Your task to perform on an android device: Open eBay Image 0: 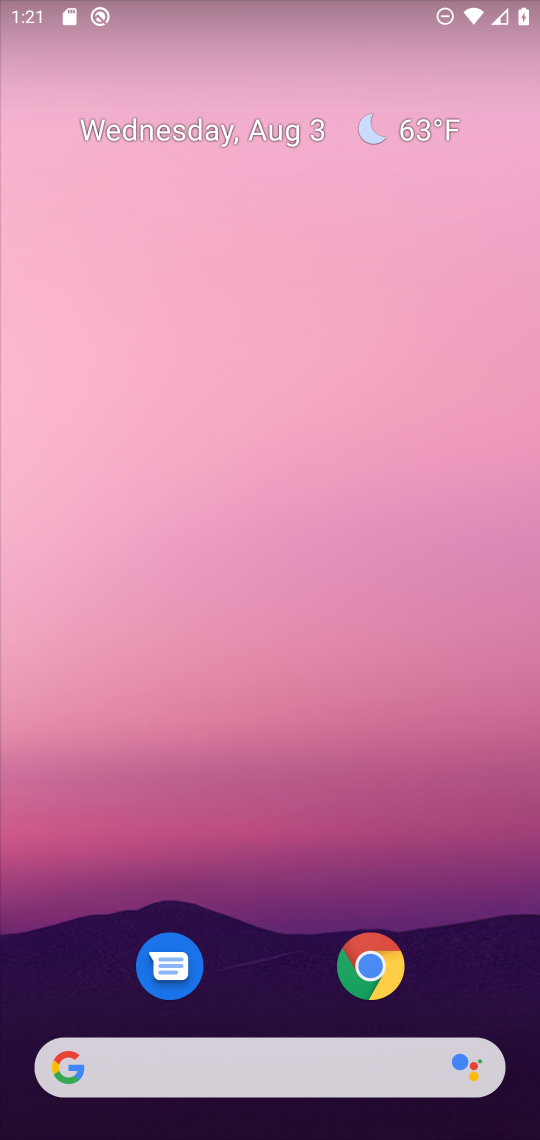
Step 0: click (355, 961)
Your task to perform on an android device: Open eBay Image 1: 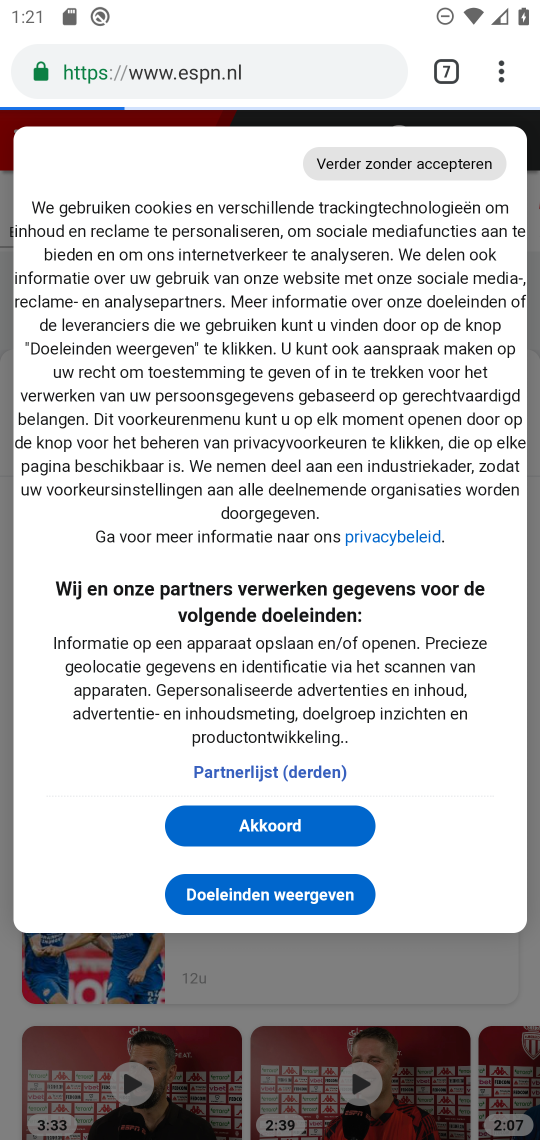
Step 1: click (446, 61)
Your task to perform on an android device: Open eBay Image 2: 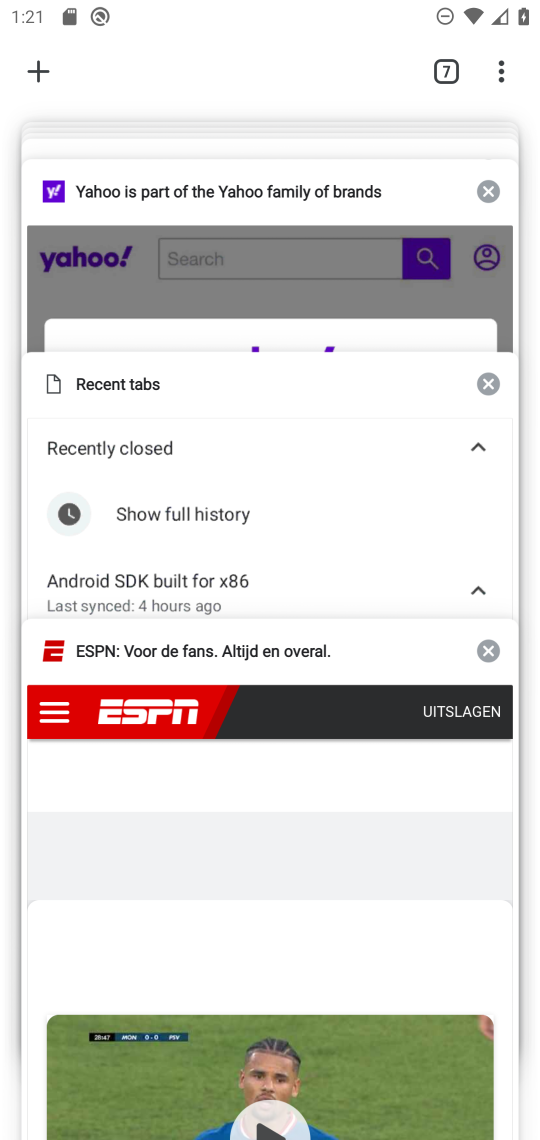
Step 2: click (42, 81)
Your task to perform on an android device: Open eBay Image 3: 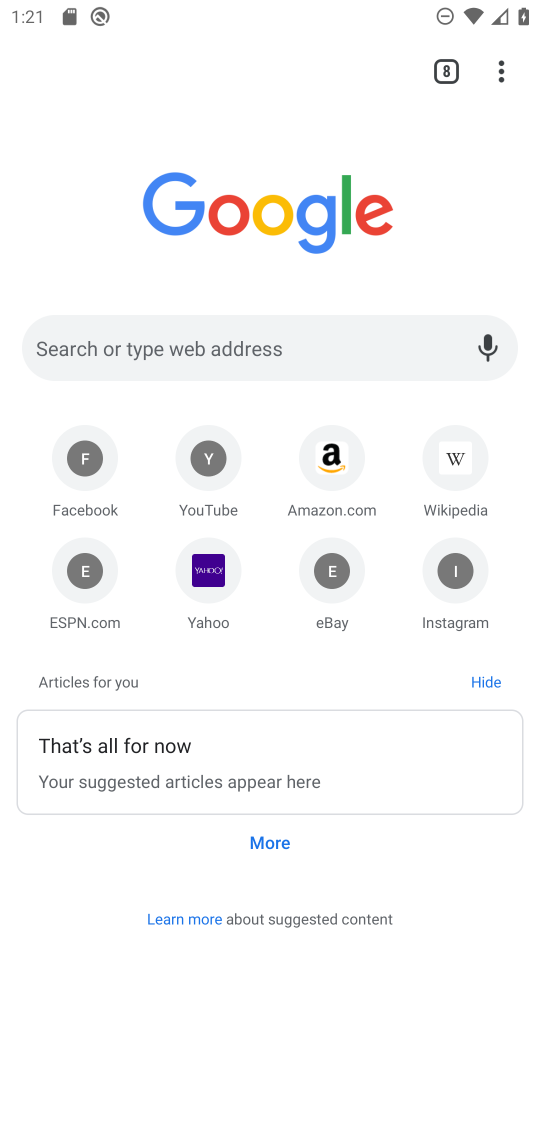
Step 3: click (236, 329)
Your task to perform on an android device: Open eBay Image 4: 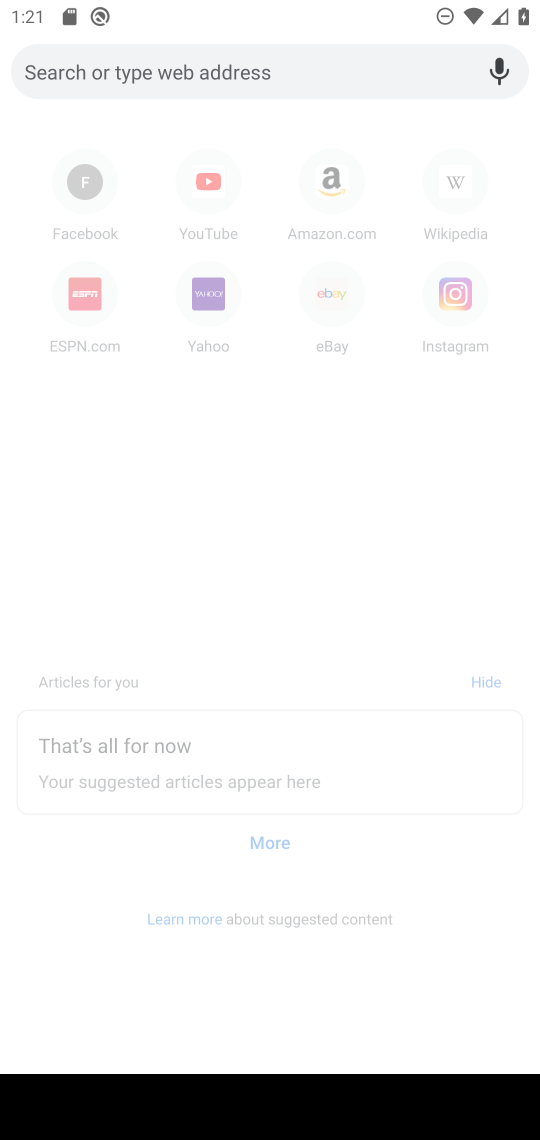
Step 4: type "eBay"
Your task to perform on an android device: Open eBay Image 5: 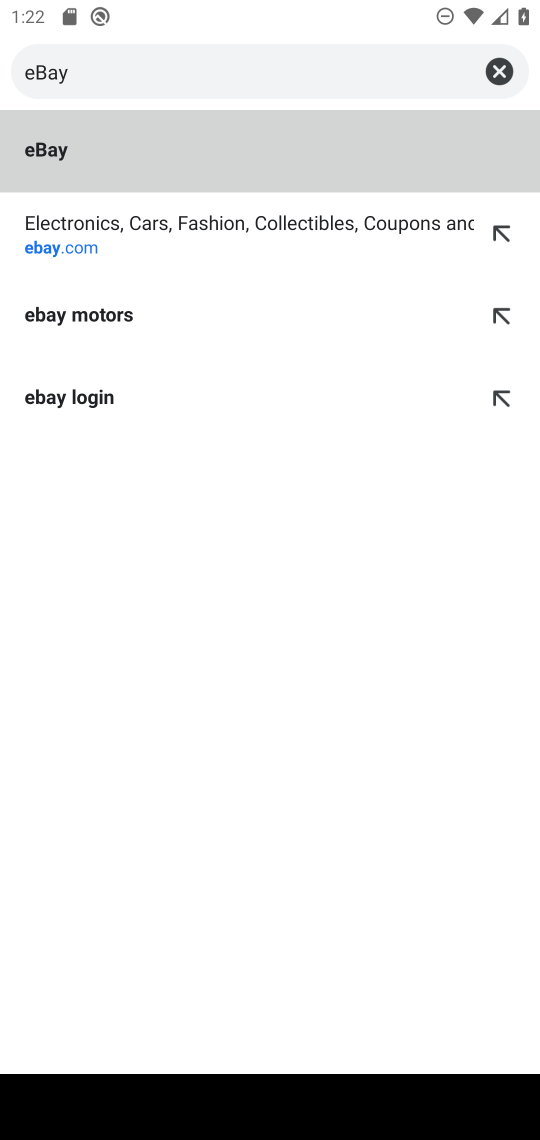
Step 5: click (366, 156)
Your task to perform on an android device: Open eBay Image 6: 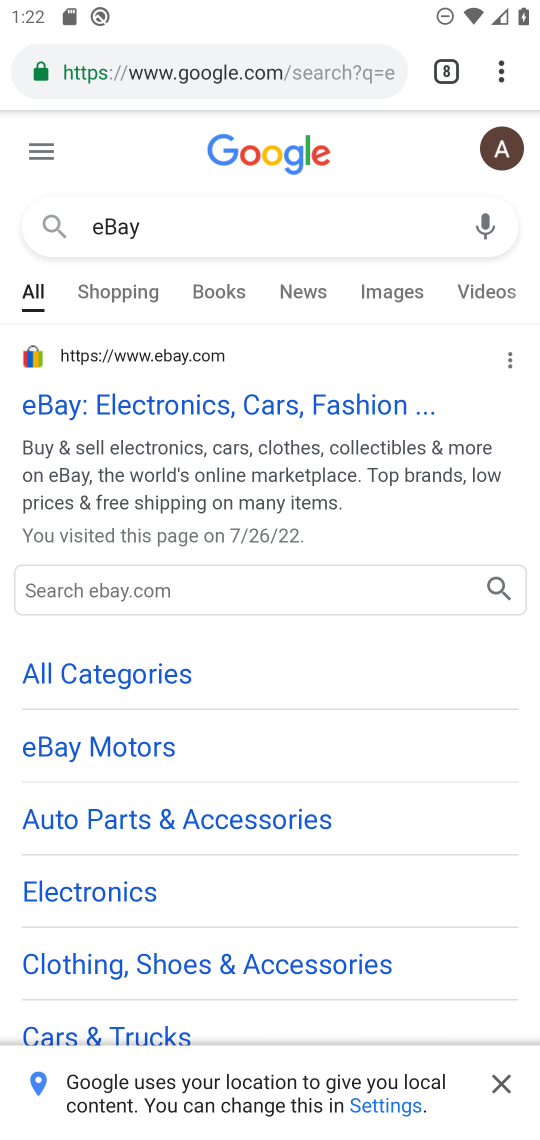
Step 6: click (126, 401)
Your task to perform on an android device: Open eBay Image 7: 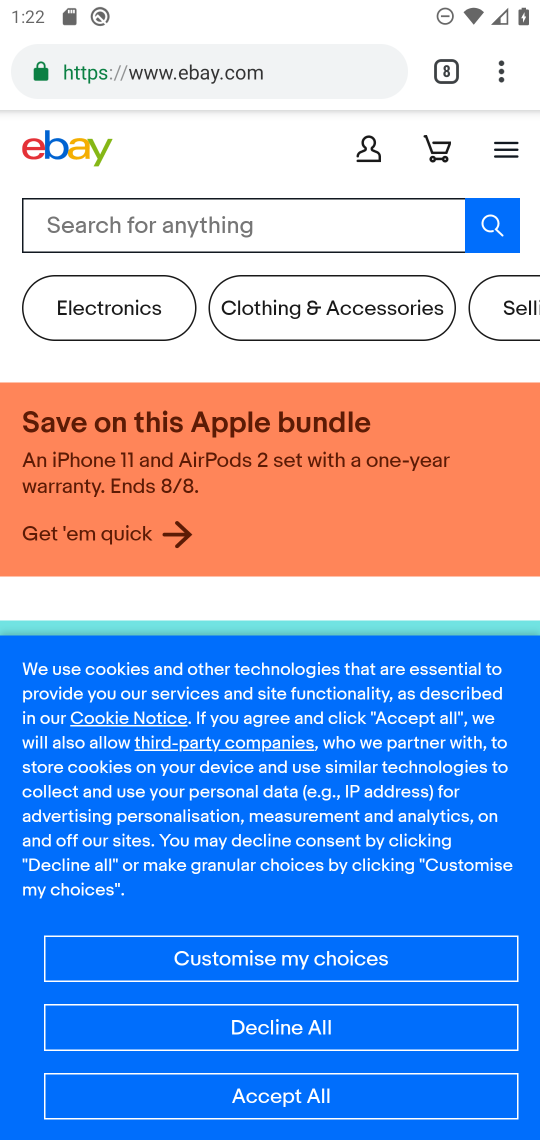
Step 7: task complete